Your task to perform on an android device: Go to Google maps Image 0: 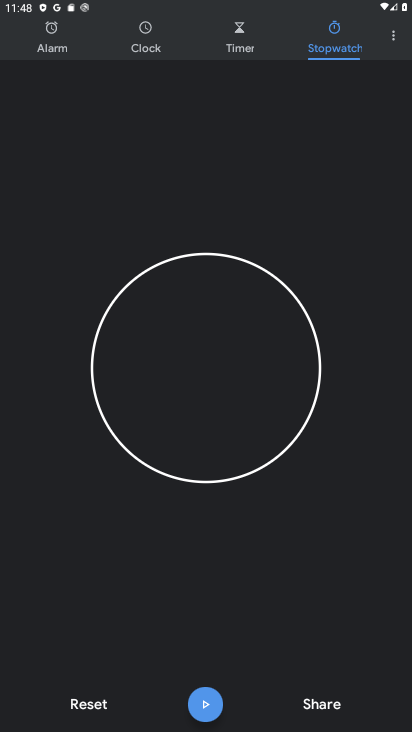
Step 0: press home button
Your task to perform on an android device: Go to Google maps Image 1: 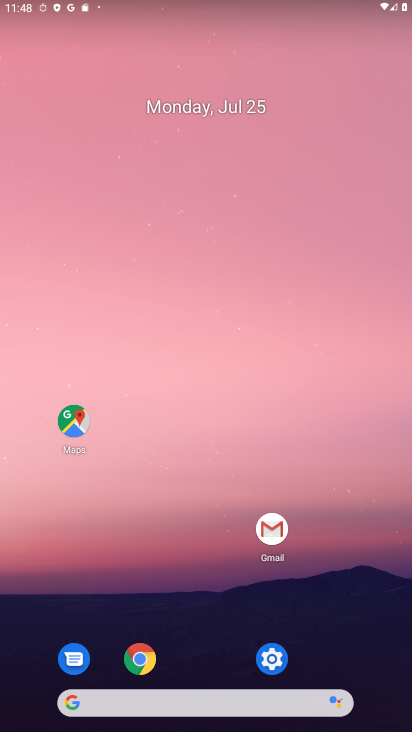
Step 1: click (74, 424)
Your task to perform on an android device: Go to Google maps Image 2: 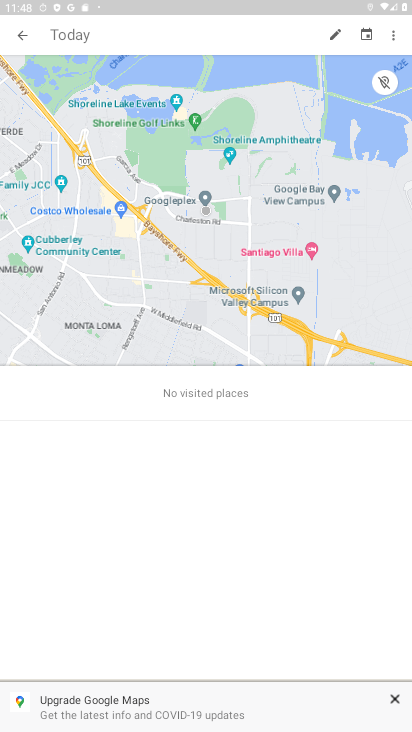
Step 2: click (13, 39)
Your task to perform on an android device: Go to Google maps Image 3: 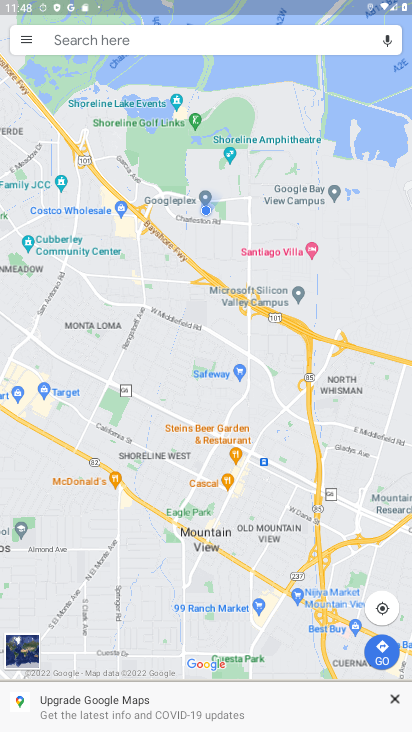
Step 3: click (382, 606)
Your task to perform on an android device: Go to Google maps Image 4: 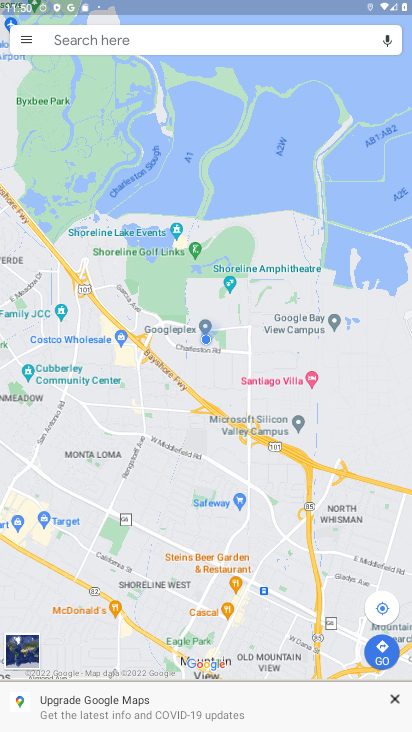
Step 4: task complete